Your task to perform on an android device: turn off translation in the chrome app Image 0: 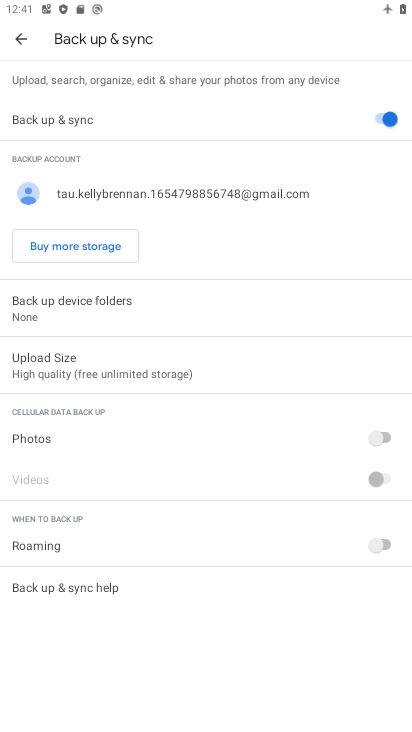
Step 0: press home button
Your task to perform on an android device: turn off translation in the chrome app Image 1: 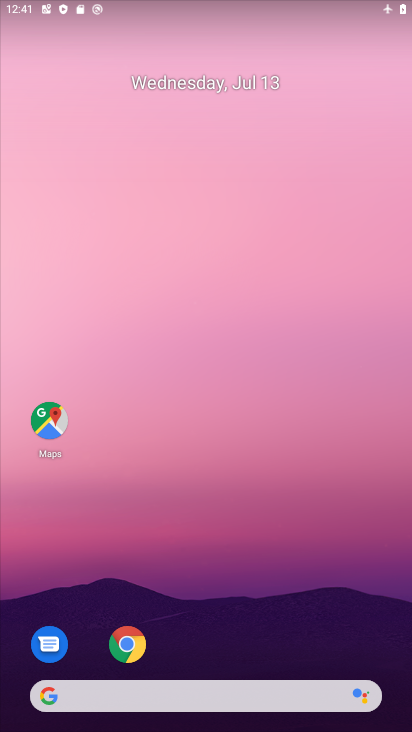
Step 1: drag from (300, 596) to (294, 60)
Your task to perform on an android device: turn off translation in the chrome app Image 2: 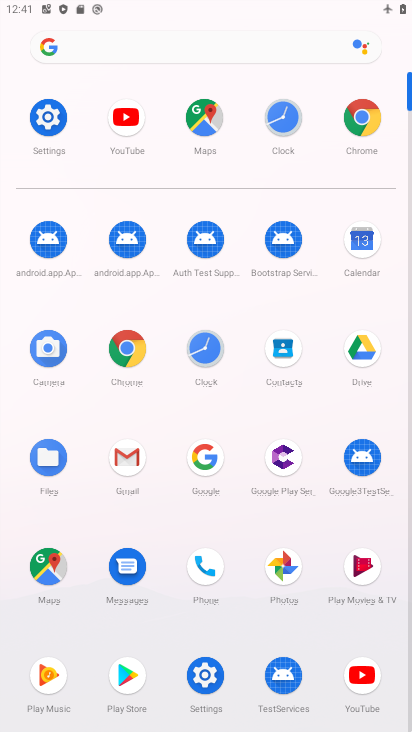
Step 2: click (124, 346)
Your task to perform on an android device: turn off translation in the chrome app Image 3: 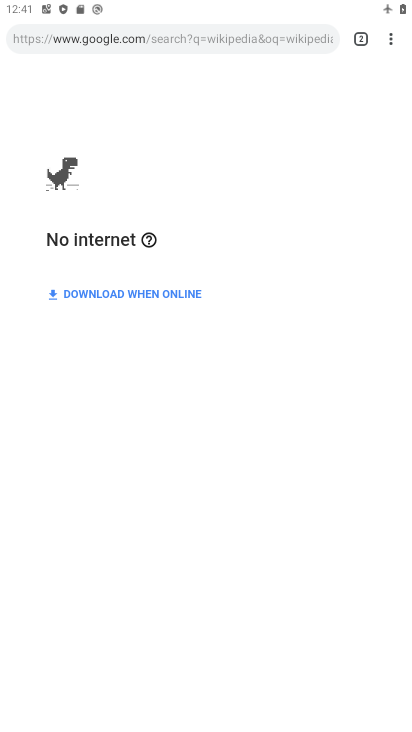
Step 3: drag from (386, 38) to (264, 434)
Your task to perform on an android device: turn off translation in the chrome app Image 4: 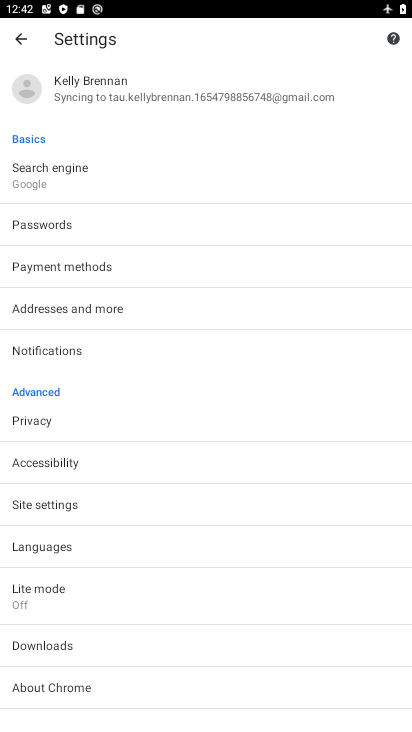
Step 4: click (49, 545)
Your task to perform on an android device: turn off translation in the chrome app Image 5: 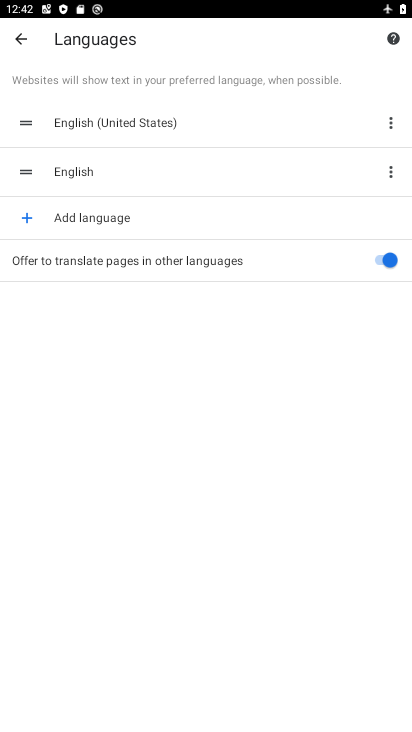
Step 5: click (376, 255)
Your task to perform on an android device: turn off translation in the chrome app Image 6: 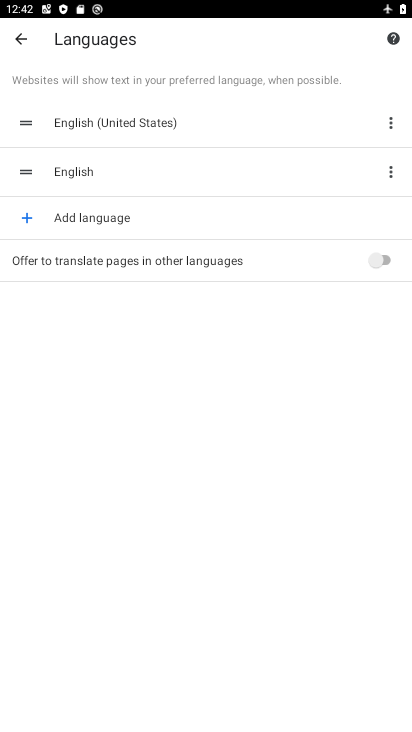
Step 6: task complete